Your task to perform on an android device: Open Yahoo.com Image 0: 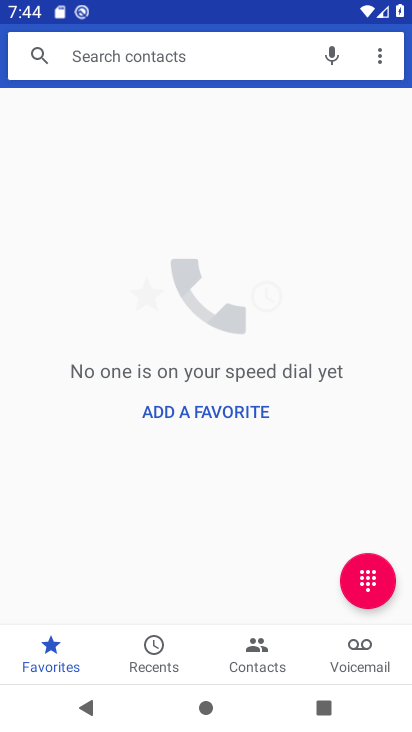
Step 0: press home button
Your task to perform on an android device: Open Yahoo.com Image 1: 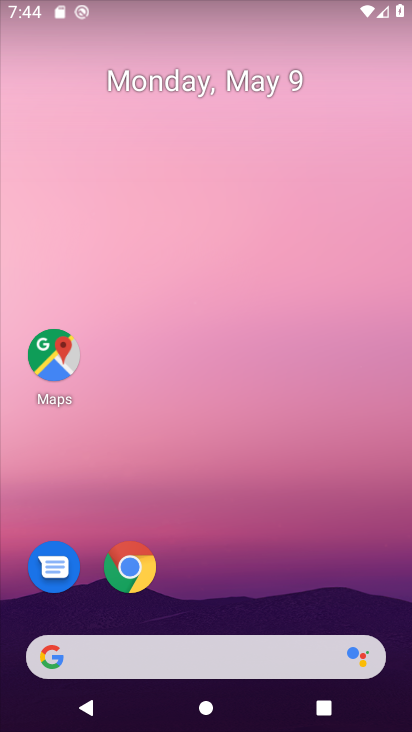
Step 1: drag from (233, 602) to (225, 71)
Your task to perform on an android device: Open Yahoo.com Image 2: 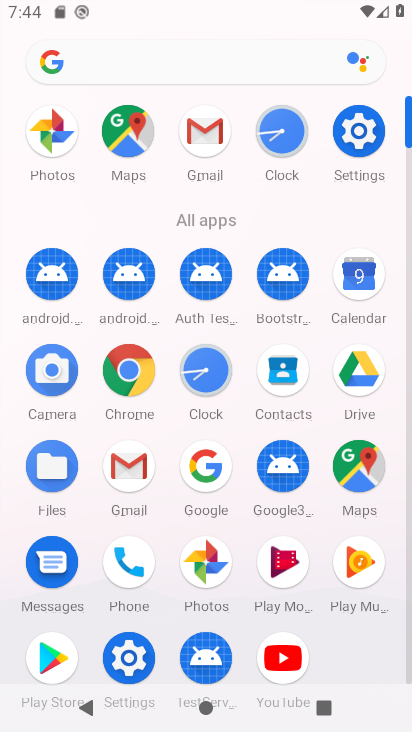
Step 2: click (141, 389)
Your task to perform on an android device: Open Yahoo.com Image 3: 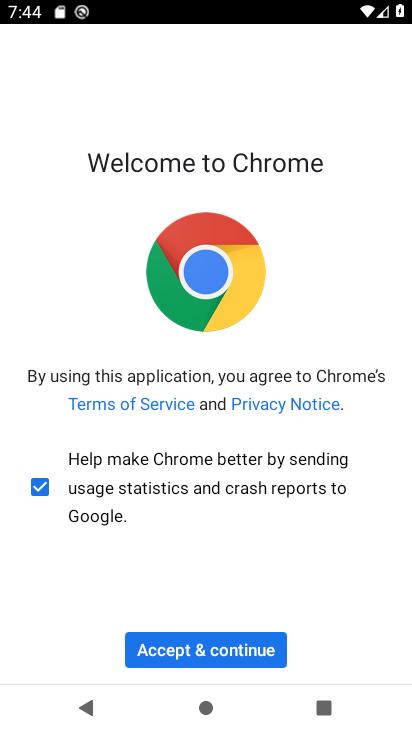
Step 3: click (232, 654)
Your task to perform on an android device: Open Yahoo.com Image 4: 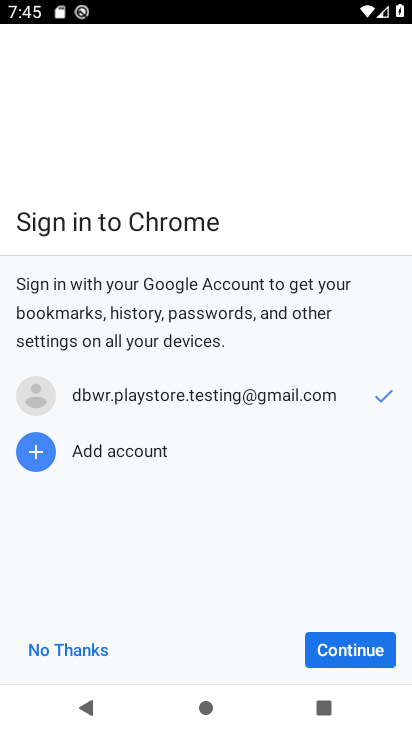
Step 4: click (362, 650)
Your task to perform on an android device: Open Yahoo.com Image 5: 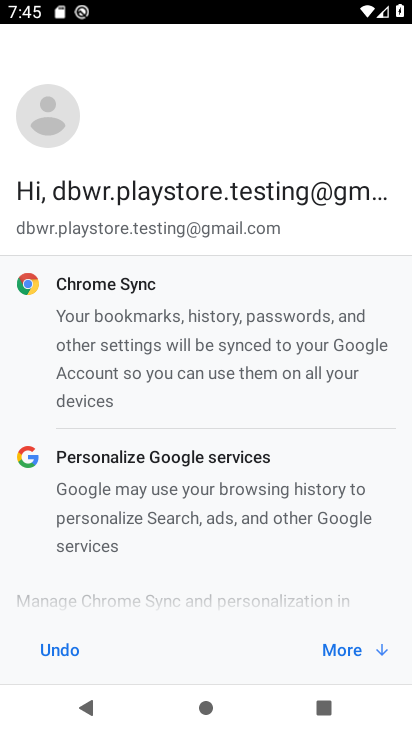
Step 5: click (356, 645)
Your task to perform on an android device: Open Yahoo.com Image 6: 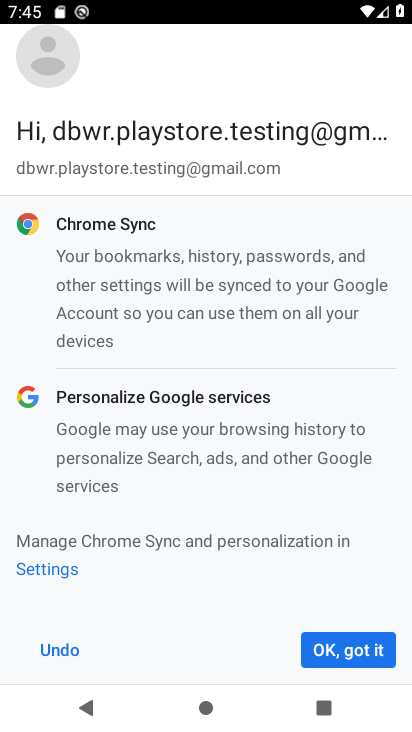
Step 6: click (356, 645)
Your task to perform on an android device: Open Yahoo.com Image 7: 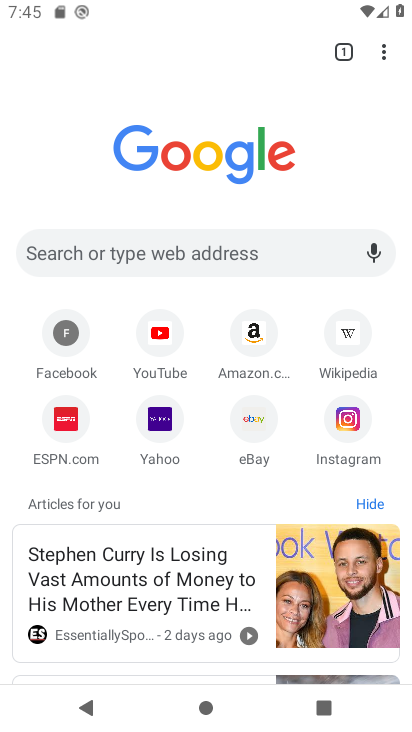
Step 7: click (155, 414)
Your task to perform on an android device: Open Yahoo.com Image 8: 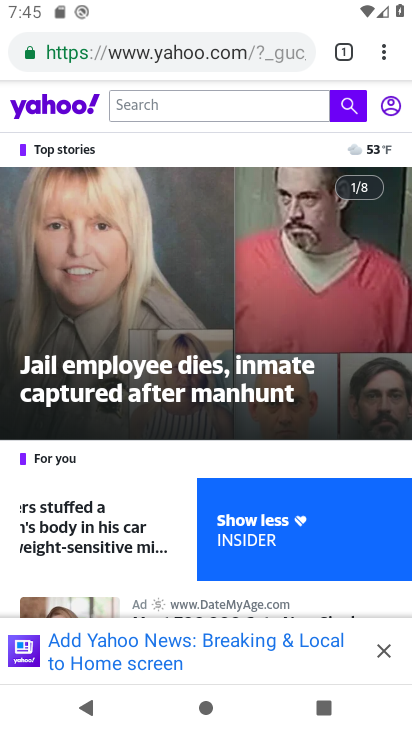
Step 8: task complete